Your task to perform on an android device: toggle sleep mode Image 0: 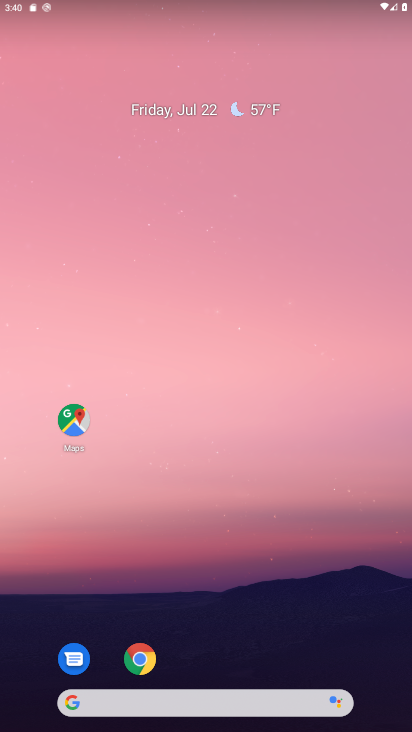
Step 0: drag from (310, 604) to (310, 5)
Your task to perform on an android device: toggle sleep mode Image 1: 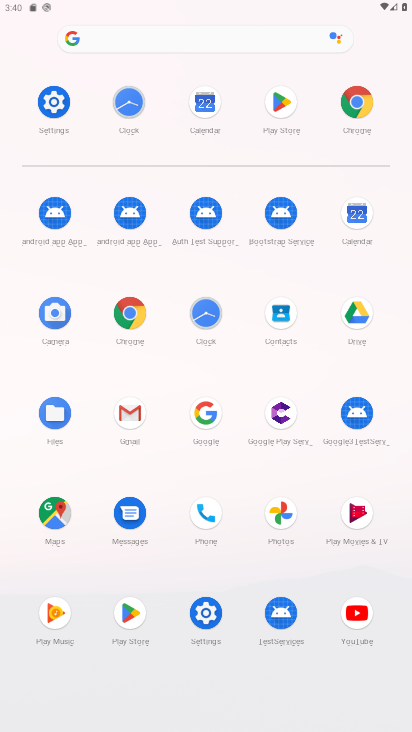
Step 1: click (51, 115)
Your task to perform on an android device: toggle sleep mode Image 2: 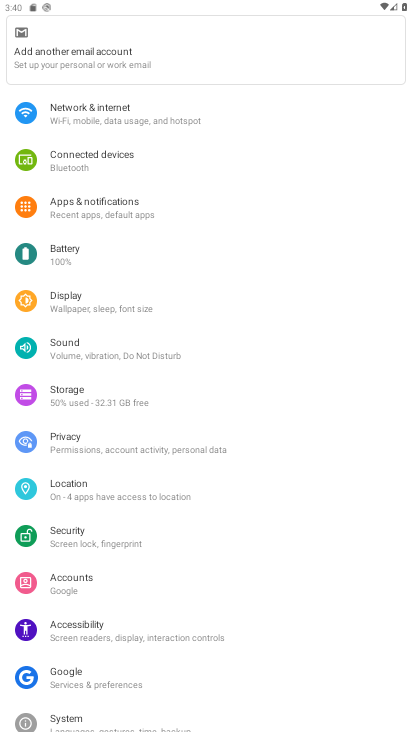
Step 2: click (64, 303)
Your task to perform on an android device: toggle sleep mode Image 3: 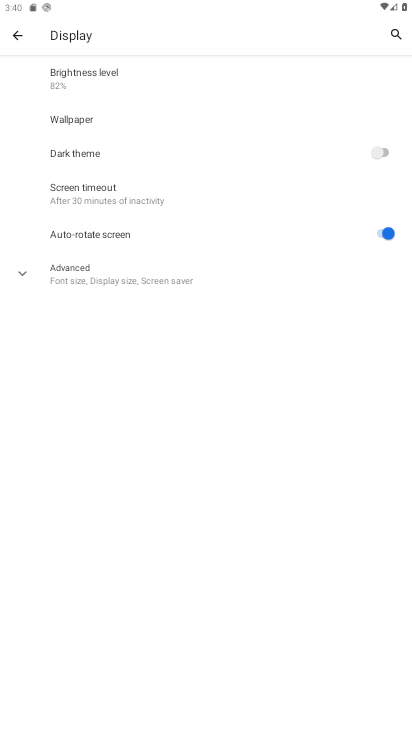
Step 3: click (139, 271)
Your task to perform on an android device: toggle sleep mode Image 4: 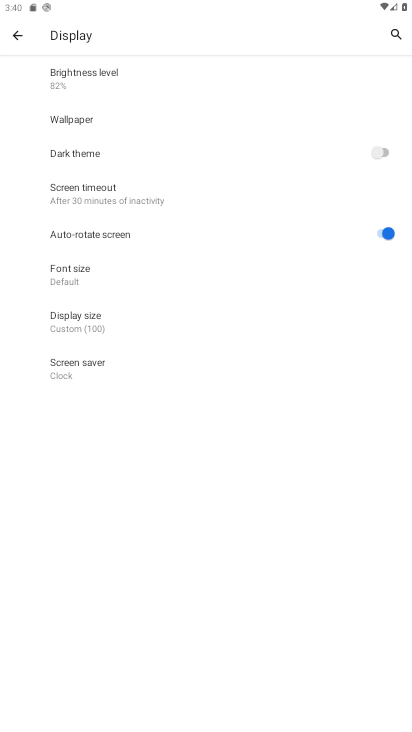
Step 4: task complete